Your task to perform on an android device: change the clock display to digital Image 0: 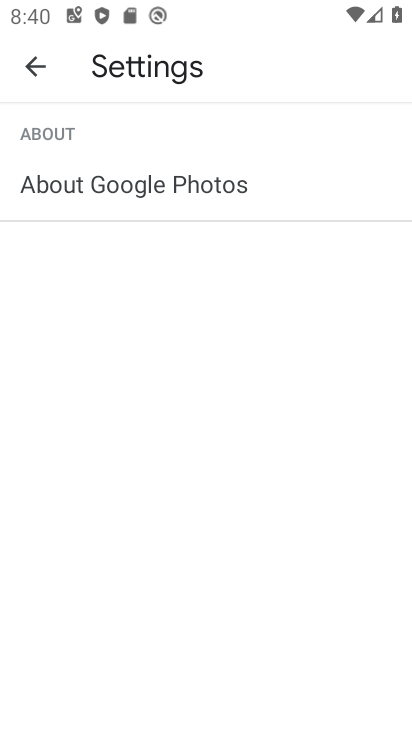
Step 0: press home button
Your task to perform on an android device: change the clock display to digital Image 1: 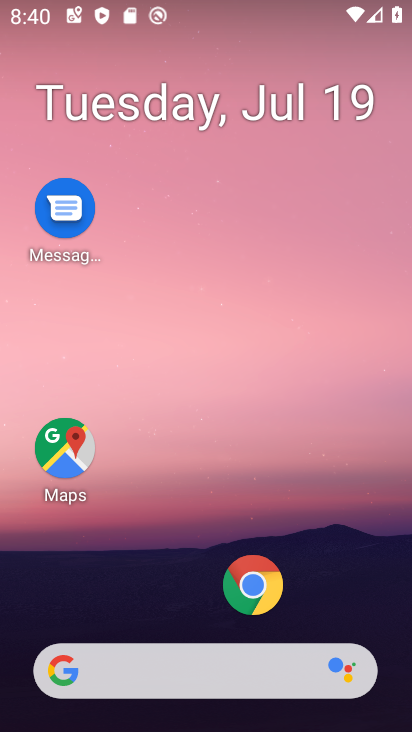
Step 1: drag from (181, 621) to (183, 214)
Your task to perform on an android device: change the clock display to digital Image 2: 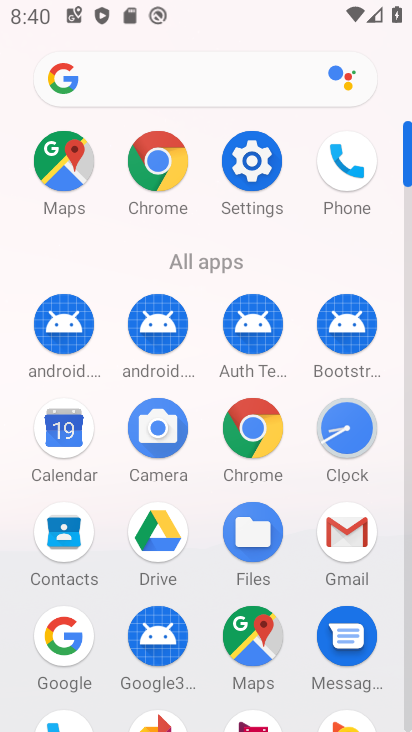
Step 2: click (357, 417)
Your task to perform on an android device: change the clock display to digital Image 3: 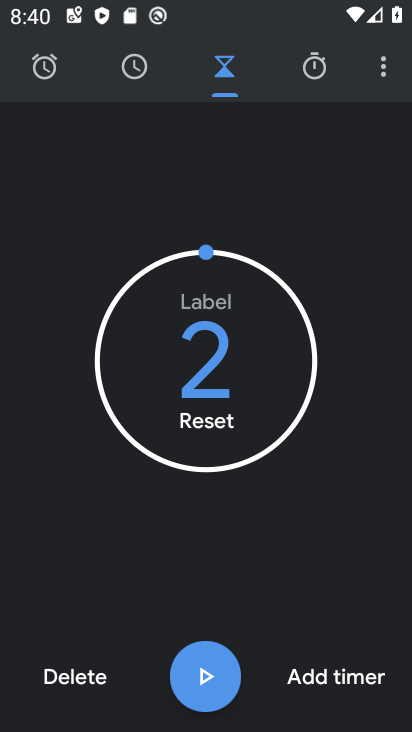
Step 3: click (383, 56)
Your task to perform on an android device: change the clock display to digital Image 4: 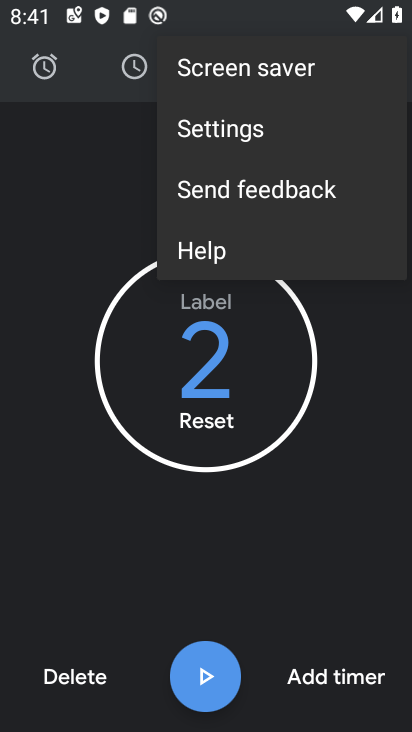
Step 4: click (222, 134)
Your task to perform on an android device: change the clock display to digital Image 5: 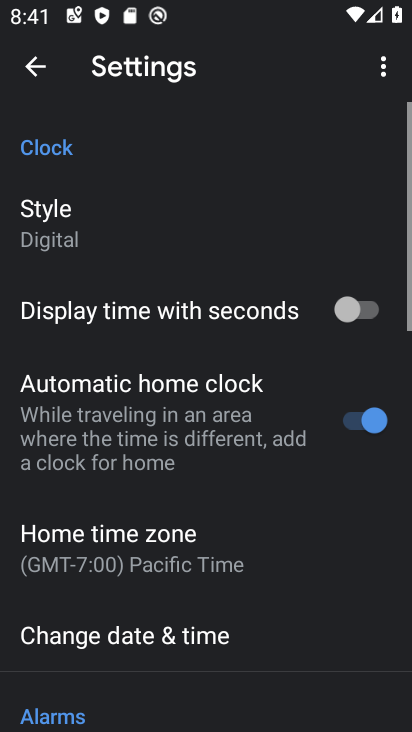
Step 5: click (120, 236)
Your task to perform on an android device: change the clock display to digital Image 6: 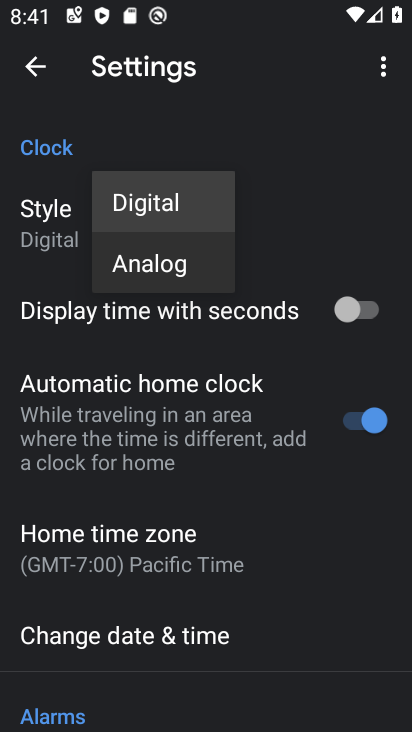
Step 6: click (137, 224)
Your task to perform on an android device: change the clock display to digital Image 7: 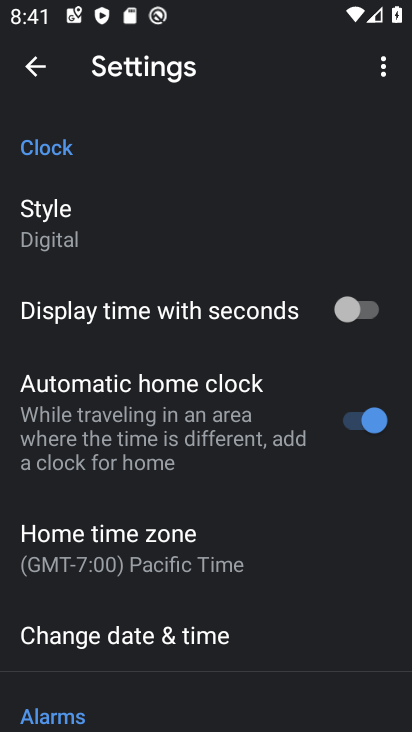
Step 7: task complete